Your task to perform on an android device: snooze an email in the gmail app Image 0: 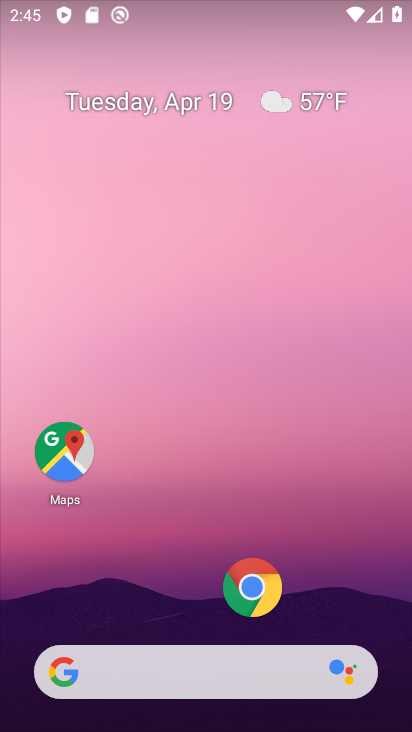
Step 0: drag from (193, 613) to (299, 1)
Your task to perform on an android device: snooze an email in the gmail app Image 1: 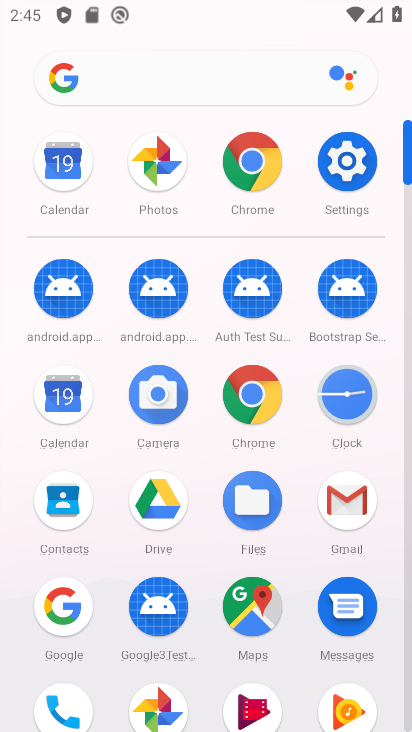
Step 1: click (353, 509)
Your task to perform on an android device: snooze an email in the gmail app Image 2: 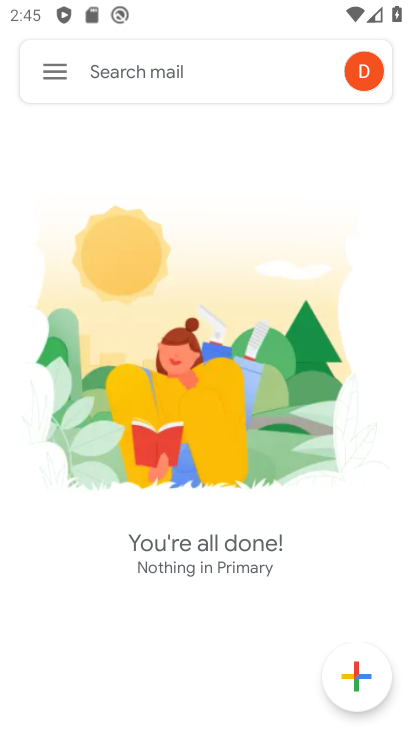
Step 2: click (54, 75)
Your task to perform on an android device: snooze an email in the gmail app Image 3: 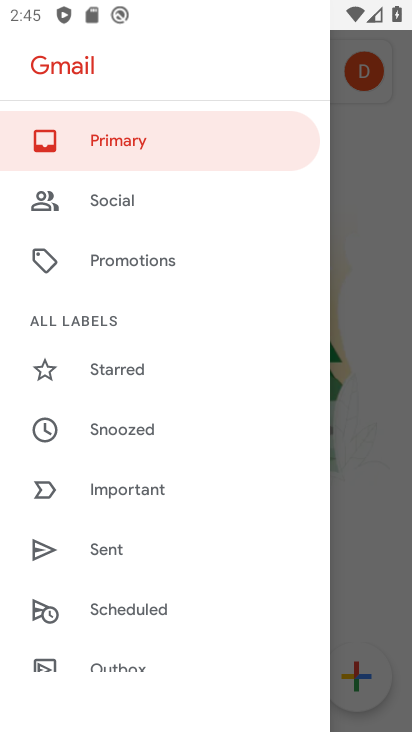
Step 3: drag from (117, 565) to (156, 255)
Your task to perform on an android device: snooze an email in the gmail app Image 4: 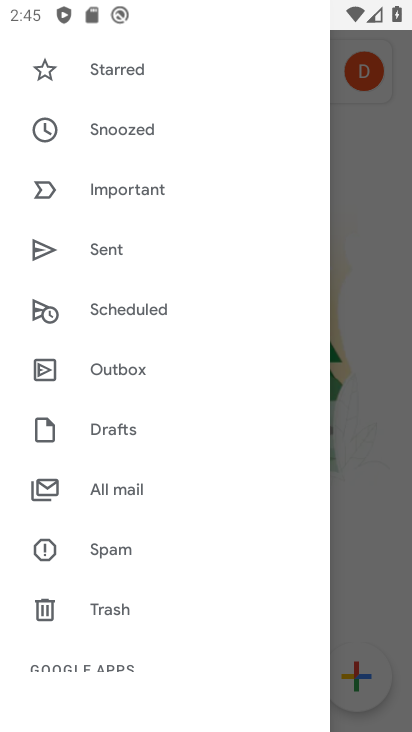
Step 4: click (129, 491)
Your task to perform on an android device: snooze an email in the gmail app Image 5: 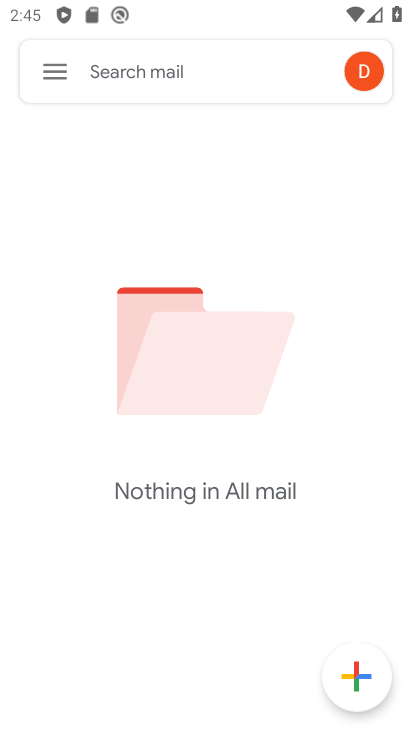
Step 5: task complete